Your task to perform on an android device: toggle notification dots Image 0: 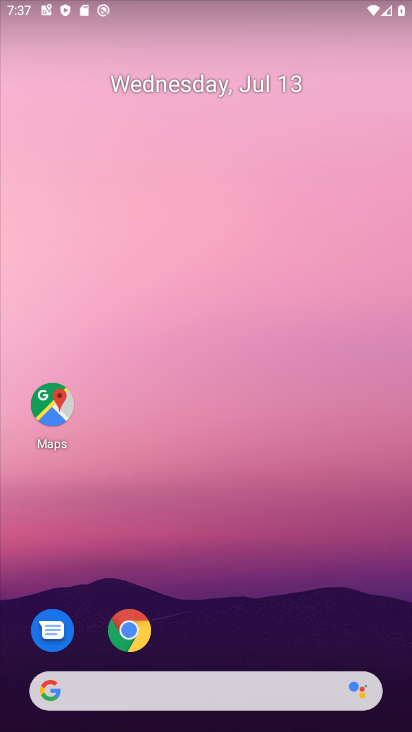
Step 0: drag from (363, 629) to (386, 129)
Your task to perform on an android device: toggle notification dots Image 1: 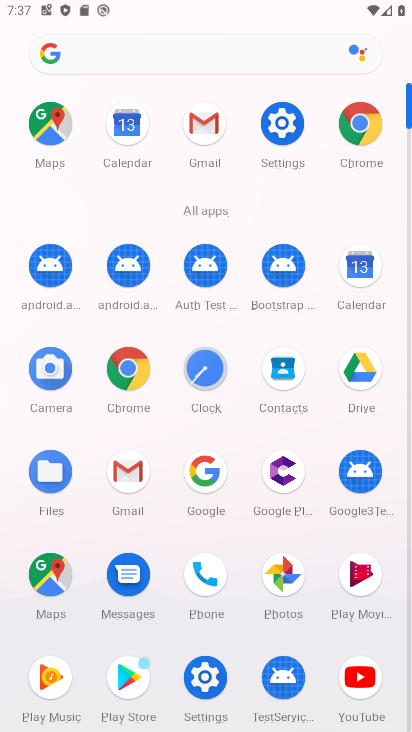
Step 1: click (284, 136)
Your task to perform on an android device: toggle notification dots Image 2: 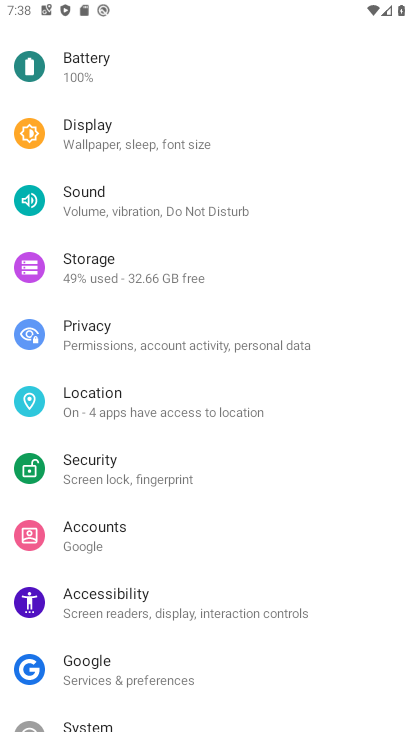
Step 2: drag from (322, 187) to (323, 297)
Your task to perform on an android device: toggle notification dots Image 3: 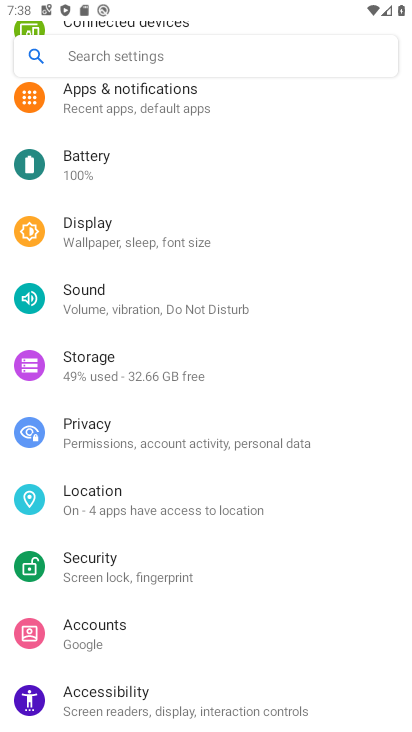
Step 3: drag from (335, 196) to (350, 319)
Your task to perform on an android device: toggle notification dots Image 4: 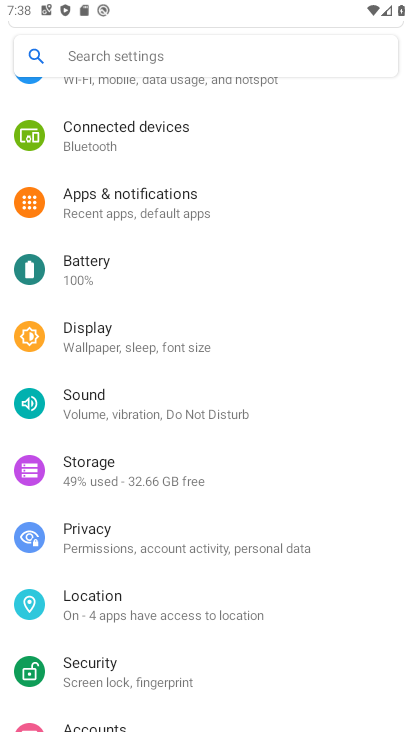
Step 4: drag from (348, 198) to (355, 474)
Your task to perform on an android device: toggle notification dots Image 5: 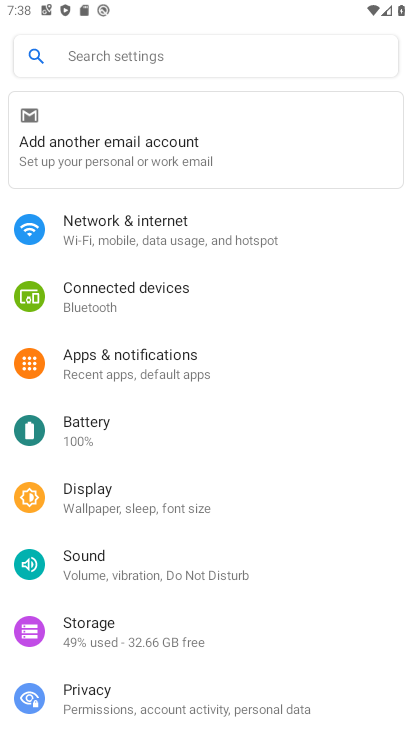
Step 5: drag from (353, 558) to (353, 486)
Your task to perform on an android device: toggle notification dots Image 6: 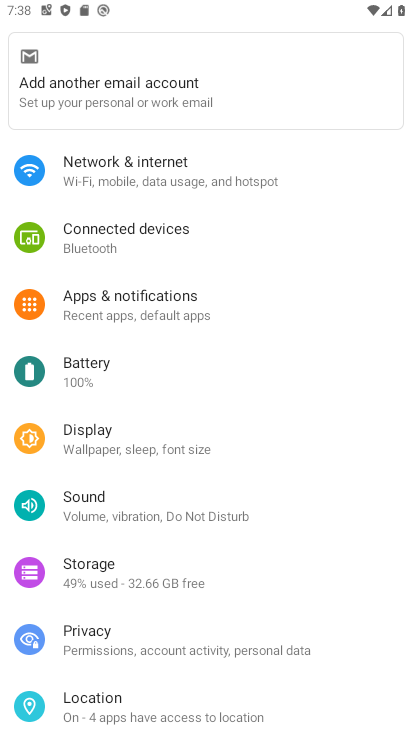
Step 6: drag from (354, 529) to (359, 467)
Your task to perform on an android device: toggle notification dots Image 7: 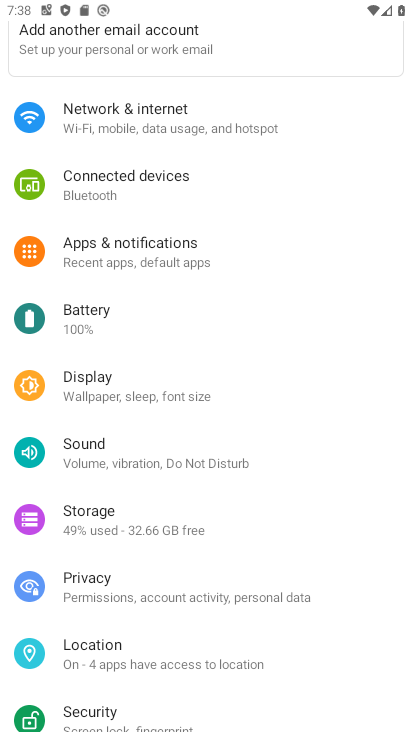
Step 7: drag from (359, 503) to (361, 445)
Your task to perform on an android device: toggle notification dots Image 8: 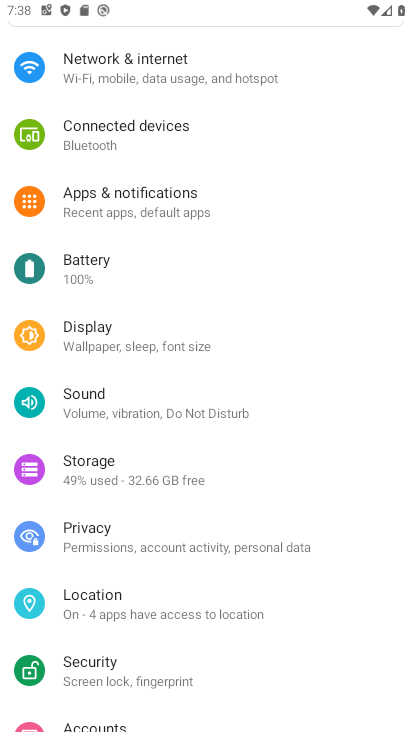
Step 8: drag from (361, 494) to (357, 400)
Your task to perform on an android device: toggle notification dots Image 9: 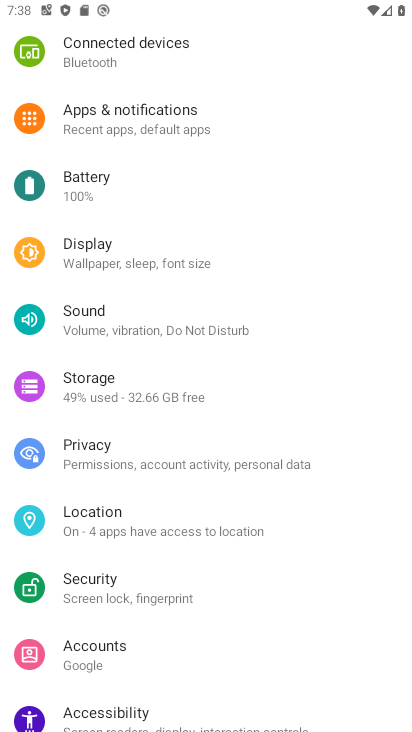
Step 9: drag from (341, 530) to (338, 395)
Your task to perform on an android device: toggle notification dots Image 10: 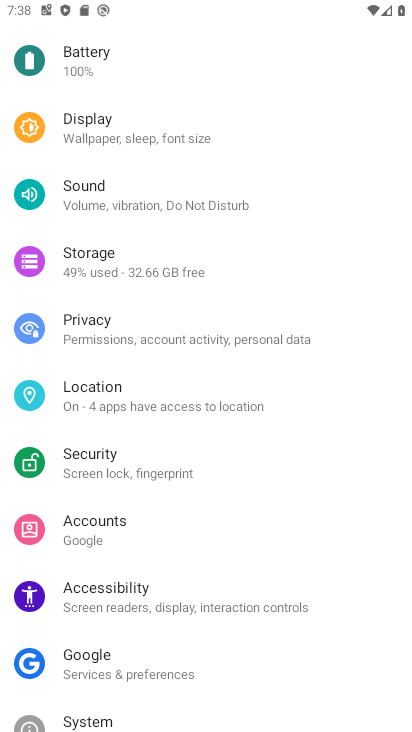
Step 10: drag from (346, 288) to (350, 373)
Your task to perform on an android device: toggle notification dots Image 11: 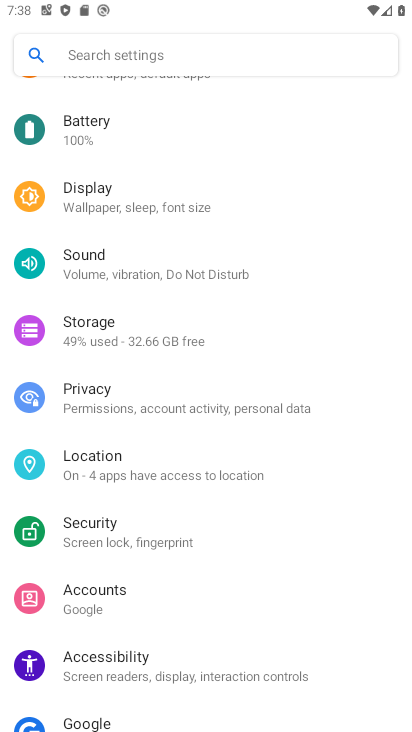
Step 11: drag from (349, 254) to (356, 345)
Your task to perform on an android device: toggle notification dots Image 12: 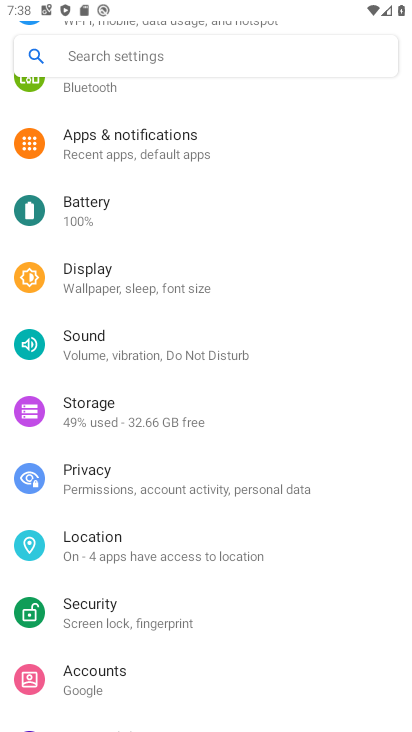
Step 12: drag from (340, 293) to (341, 407)
Your task to perform on an android device: toggle notification dots Image 13: 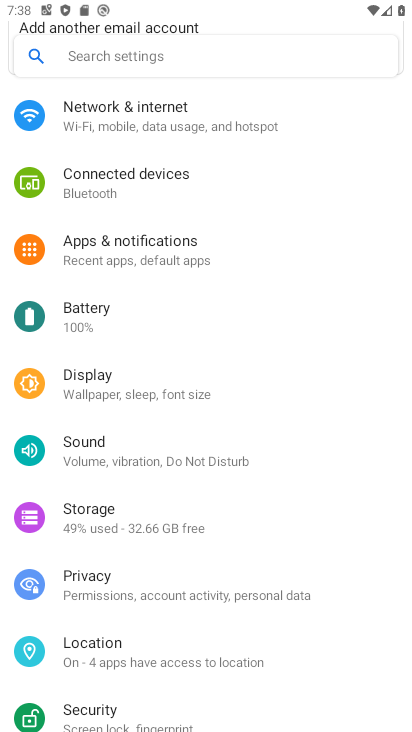
Step 13: click (212, 260)
Your task to perform on an android device: toggle notification dots Image 14: 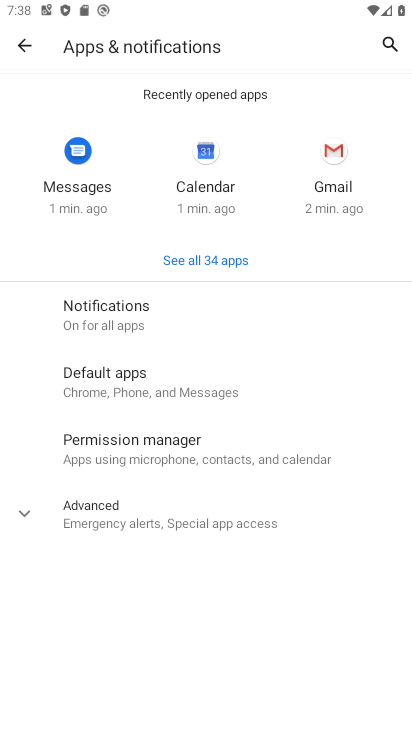
Step 14: click (128, 308)
Your task to perform on an android device: toggle notification dots Image 15: 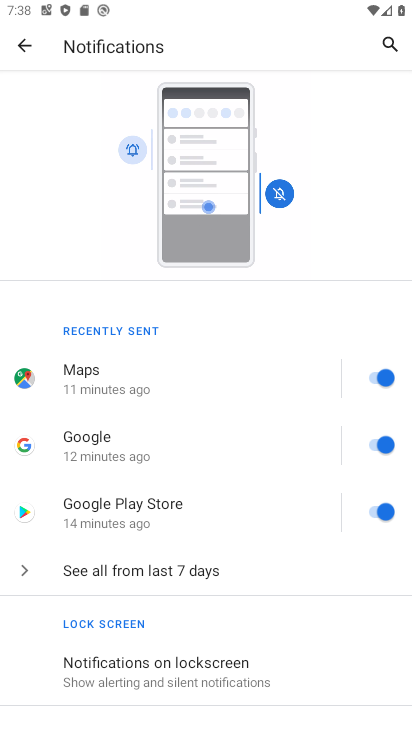
Step 15: drag from (254, 425) to (250, 276)
Your task to perform on an android device: toggle notification dots Image 16: 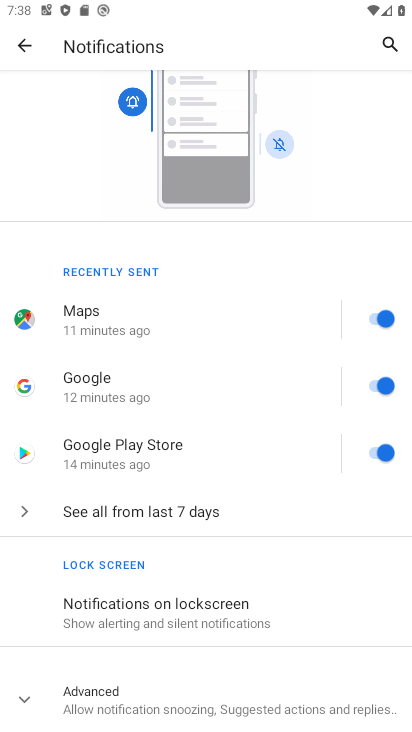
Step 16: click (272, 696)
Your task to perform on an android device: toggle notification dots Image 17: 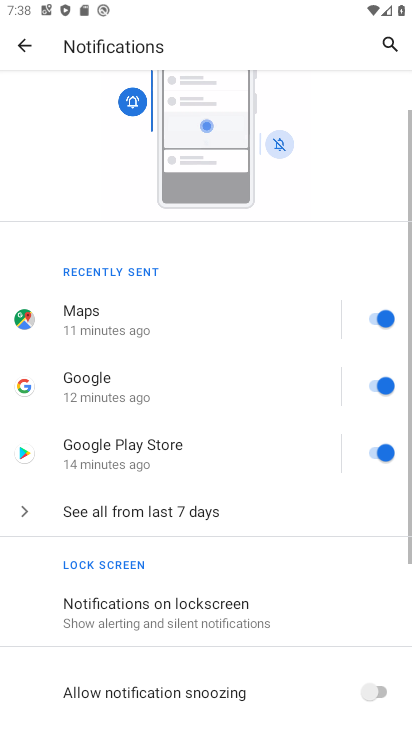
Step 17: drag from (309, 583) to (313, 358)
Your task to perform on an android device: toggle notification dots Image 18: 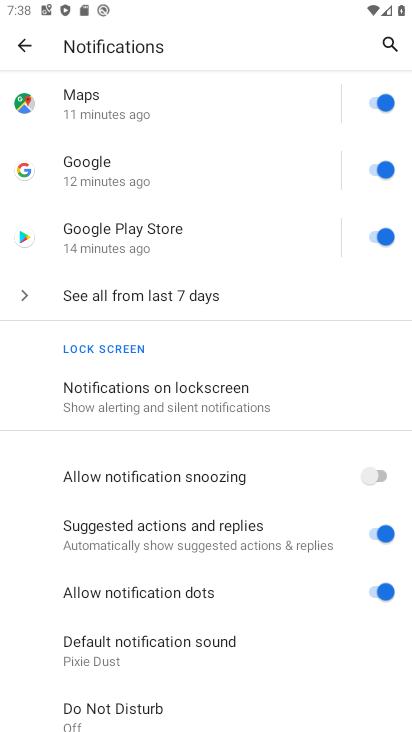
Step 18: drag from (312, 587) to (311, 400)
Your task to perform on an android device: toggle notification dots Image 19: 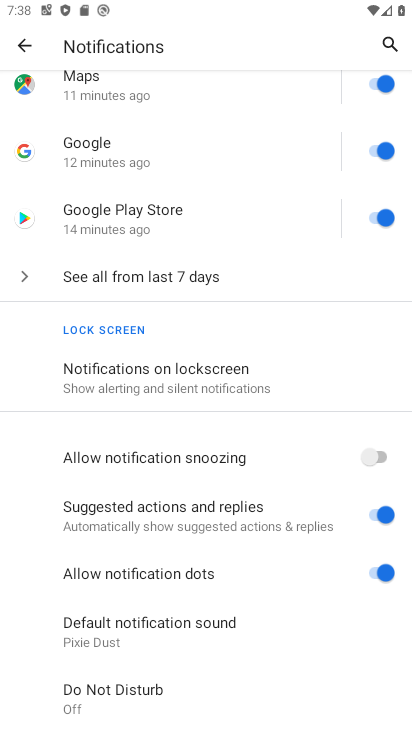
Step 19: click (381, 568)
Your task to perform on an android device: toggle notification dots Image 20: 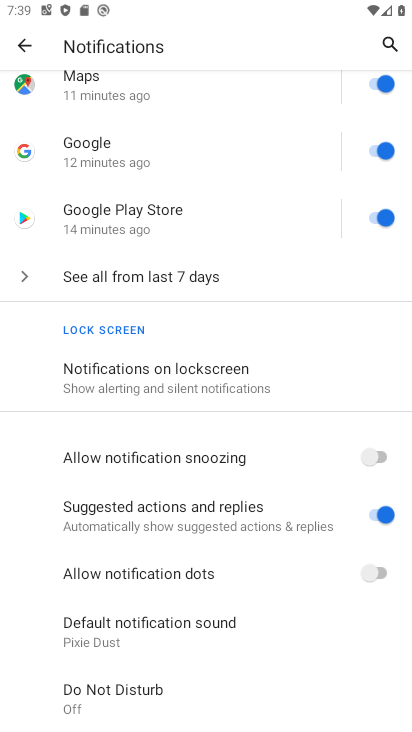
Step 20: task complete